Your task to perform on an android device: check android version Image 0: 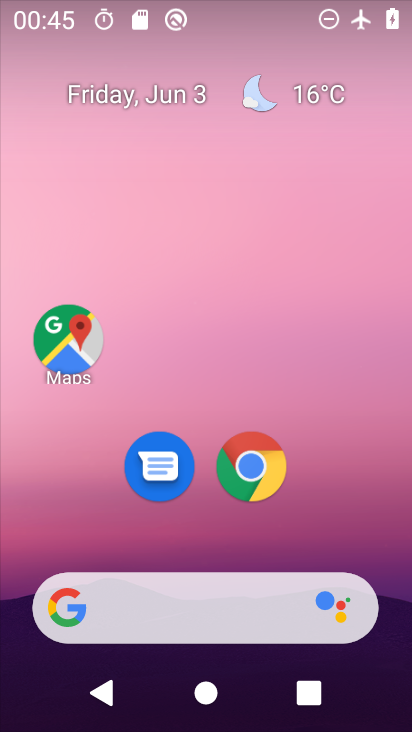
Step 0: drag from (192, 533) to (192, 169)
Your task to perform on an android device: check android version Image 1: 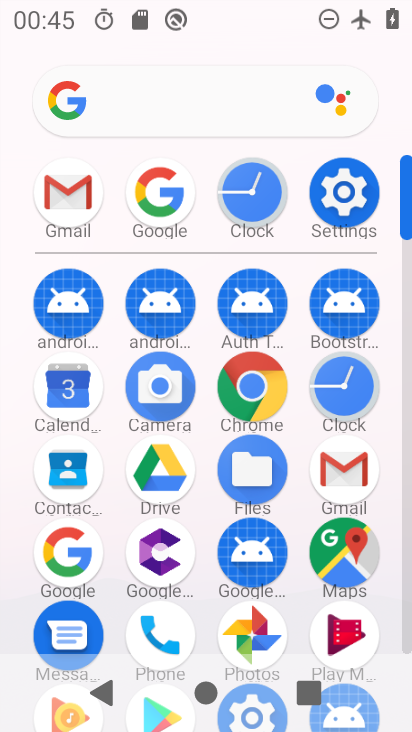
Step 1: click (309, 193)
Your task to perform on an android device: check android version Image 2: 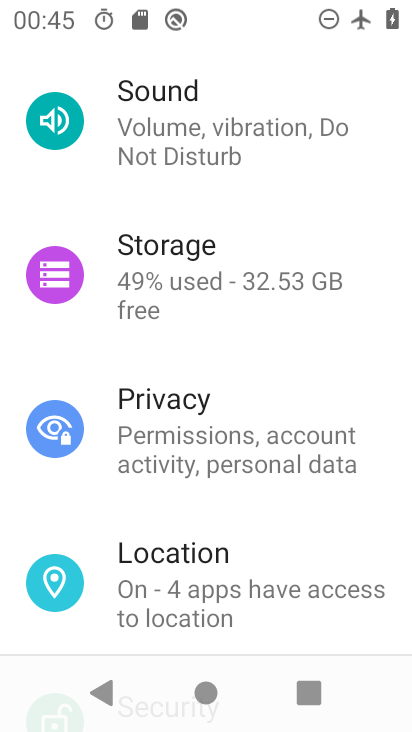
Step 2: drag from (200, 602) to (189, 239)
Your task to perform on an android device: check android version Image 3: 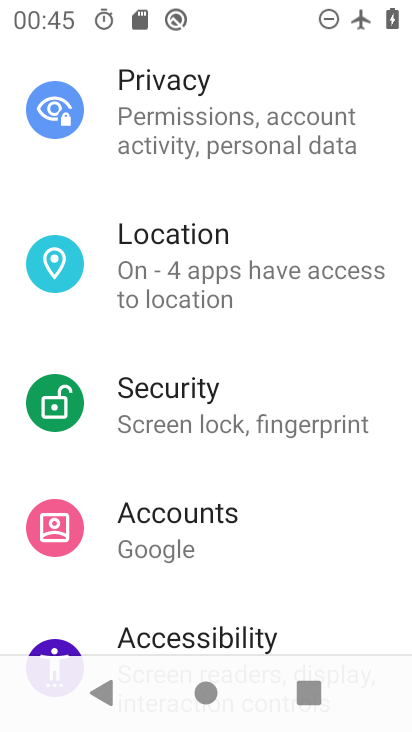
Step 3: drag from (203, 545) to (203, 181)
Your task to perform on an android device: check android version Image 4: 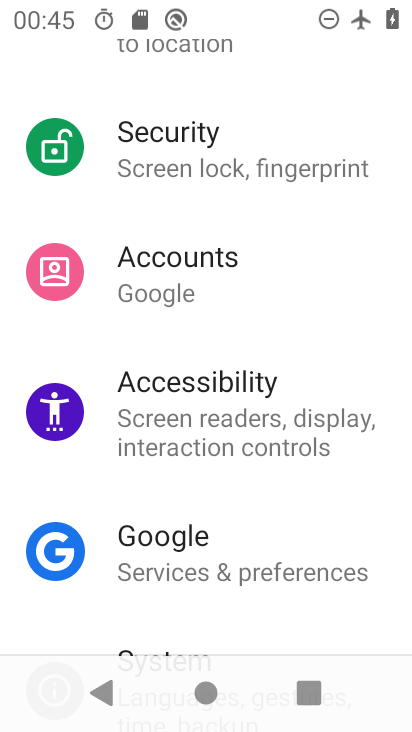
Step 4: drag from (237, 512) to (207, 179)
Your task to perform on an android device: check android version Image 5: 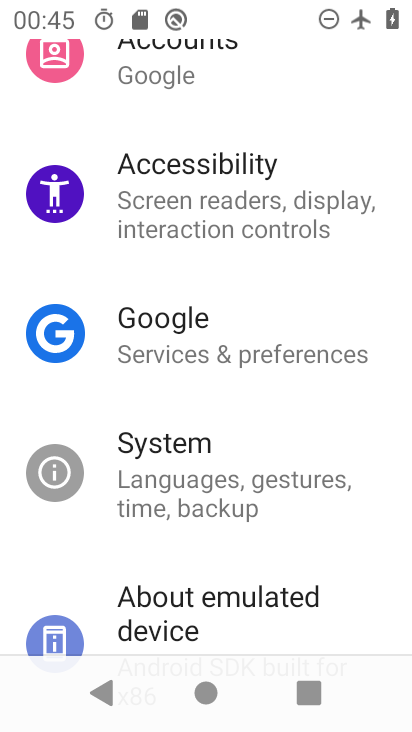
Step 5: drag from (218, 555) to (222, 236)
Your task to perform on an android device: check android version Image 6: 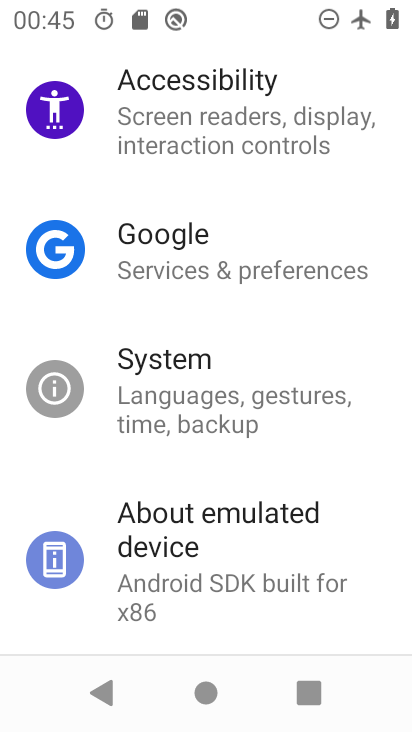
Step 6: click (222, 554)
Your task to perform on an android device: check android version Image 7: 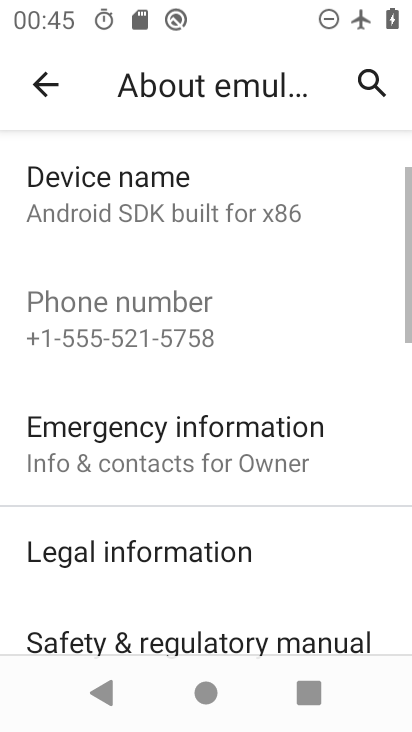
Step 7: drag from (161, 551) to (168, 226)
Your task to perform on an android device: check android version Image 8: 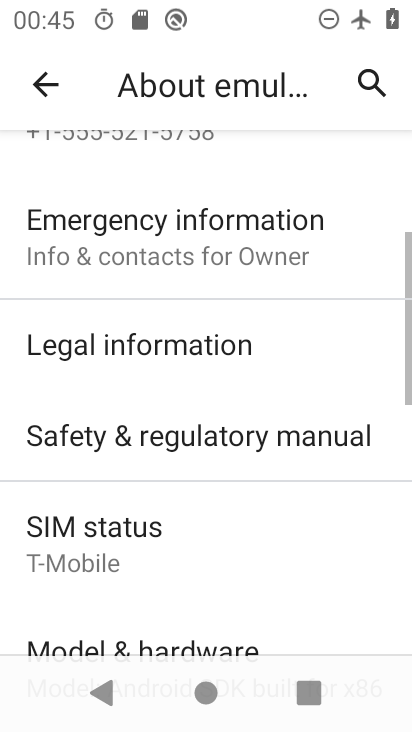
Step 8: drag from (220, 556) to (208, 302)
Your task to perform on an android device: check android version Image 9: 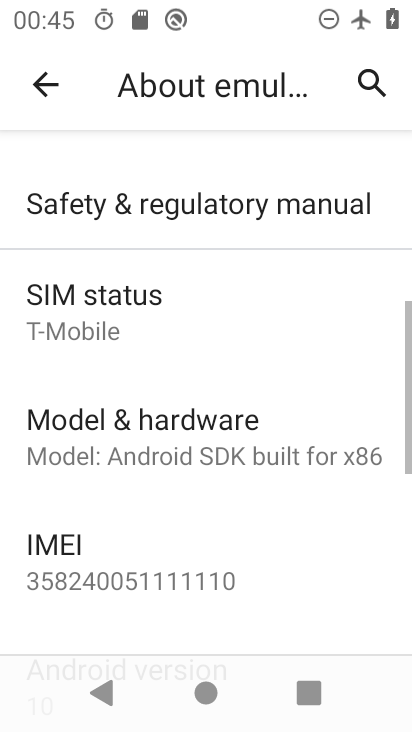
Step 9: drag from (211, 533) to (223, 240)
Your task to perform on an android device: check android version Image 10: 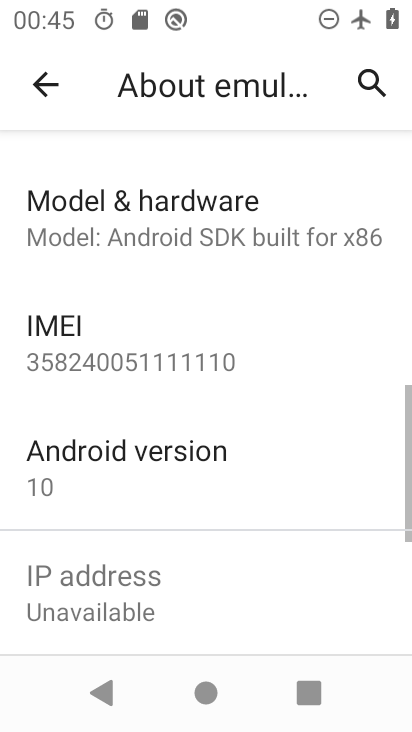
Step 10: click (146, 465)
Your task to perform on an android device: check android version Image 11: 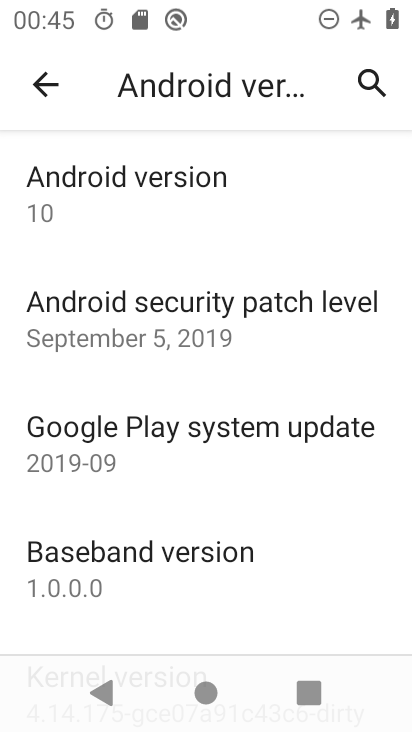
Step 11: click (223, 203)
Your task to perform on an android device: check android version Image 12: 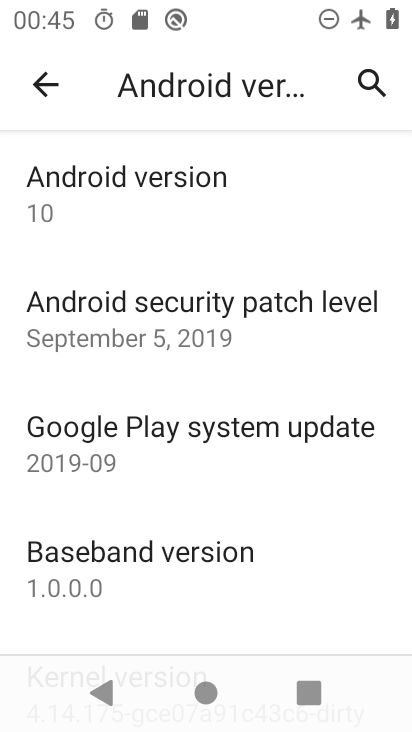
Step 12: task complete